Your task to perform on an android device: Go to privacy settings Image 0: 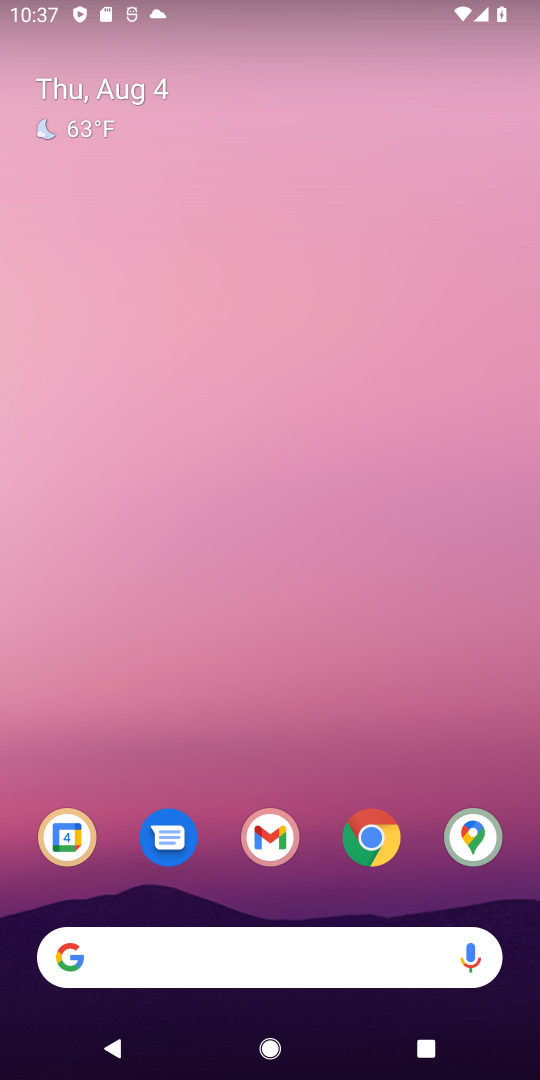
Step 0: press home button
Your task to perform on an android device: Go to privacy settings Image 1: 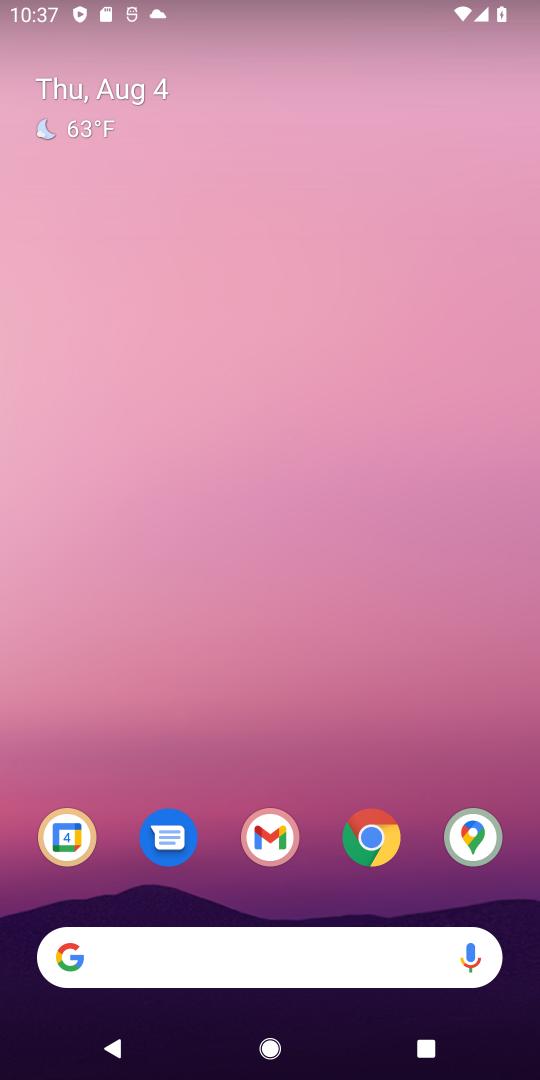
Step 1: drag from (315, 785) to (352, 139)
Your task to perform on an android device: Go to privacy settings Image 2: 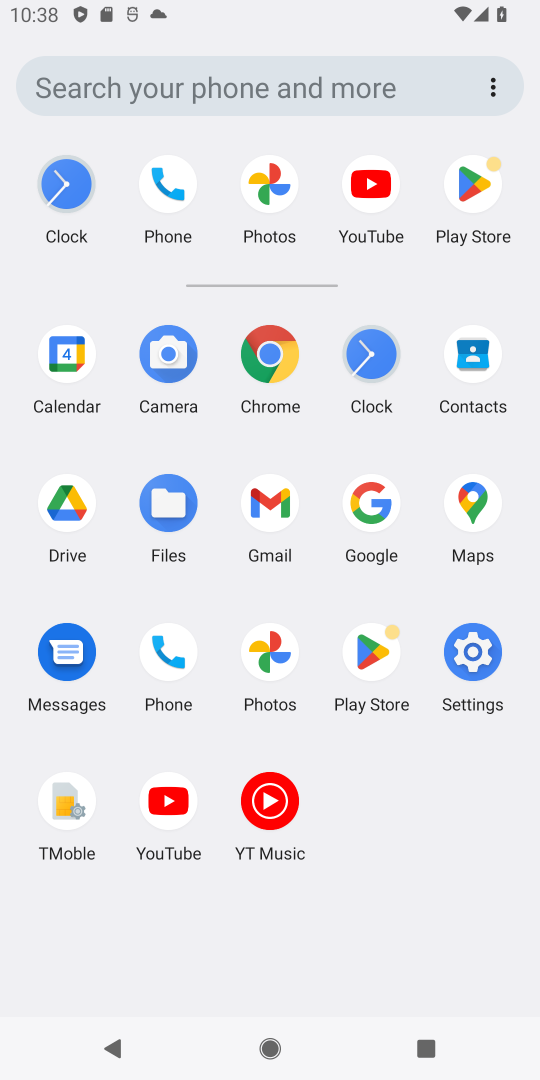
Step 2: click (470, 656)
Your task to perform on an android device: Go to privacy settings Image 3: 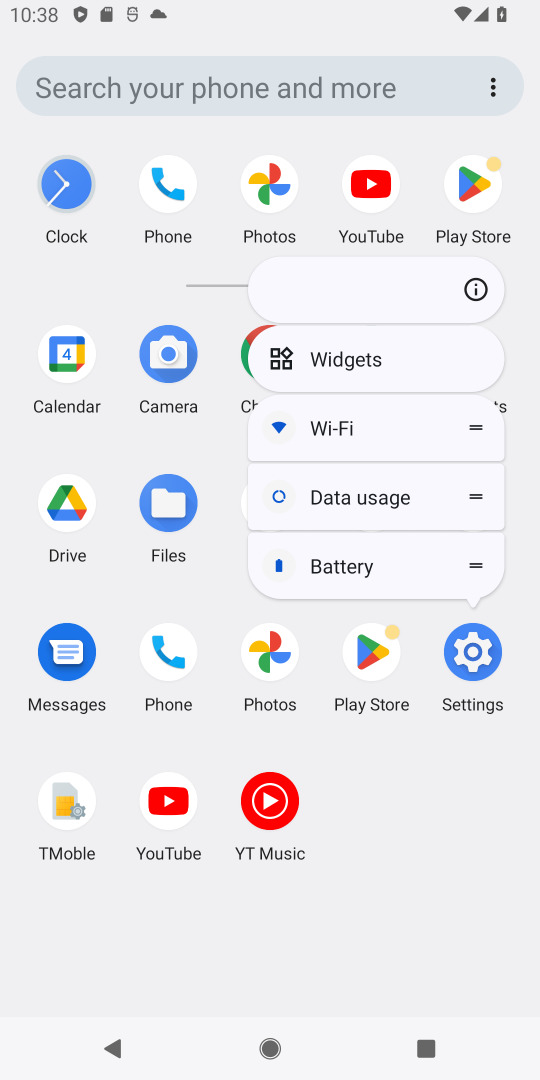
Step 3: click (466, 646)
Your task to perform on an android device: Go to privacy settings Image 4: 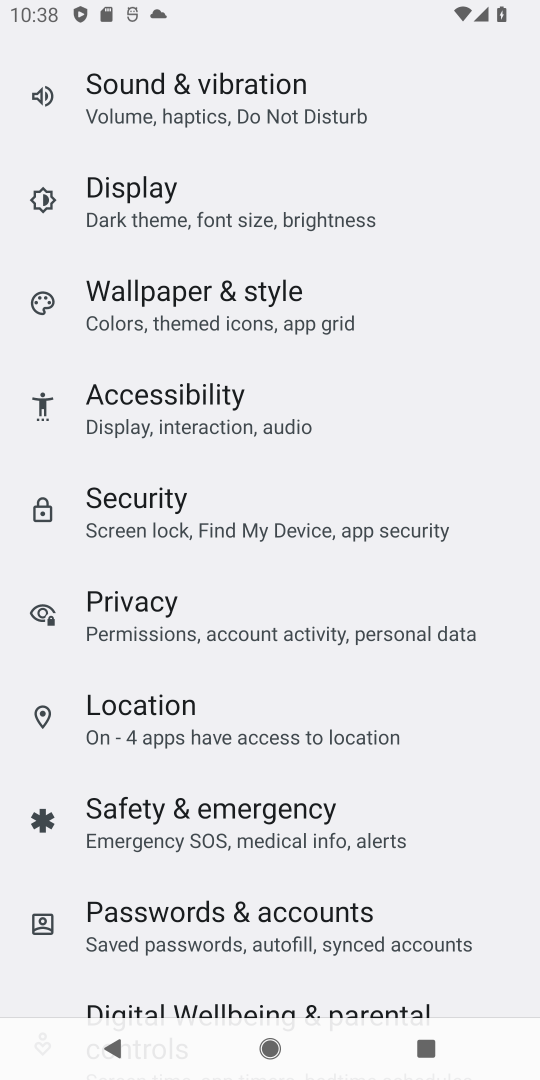
Step 4: click (199, 610)
Your task to perform on an android device: Go to privacy settings Image 5: 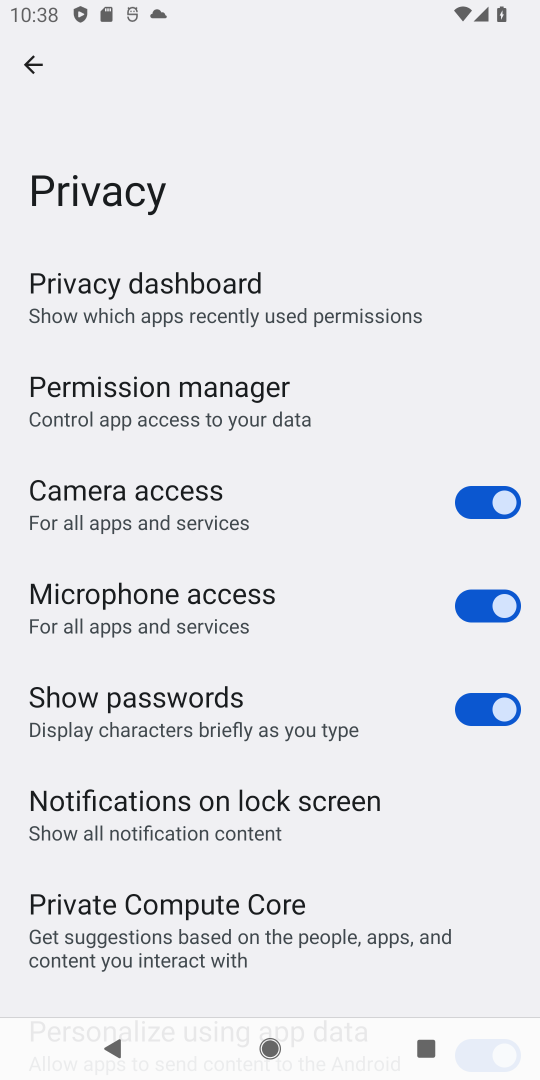
Step 5: task complete